Your task to perform on an android device: Open internet settings Image 0: 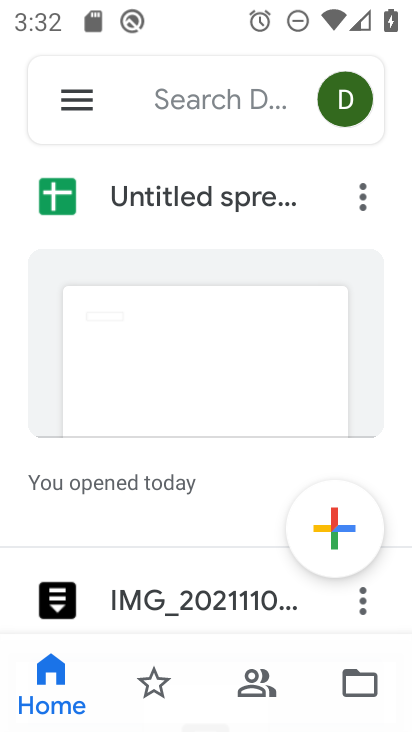
Step 0: press back button
Your task to perform on an android device: Open internet settings Image 1: 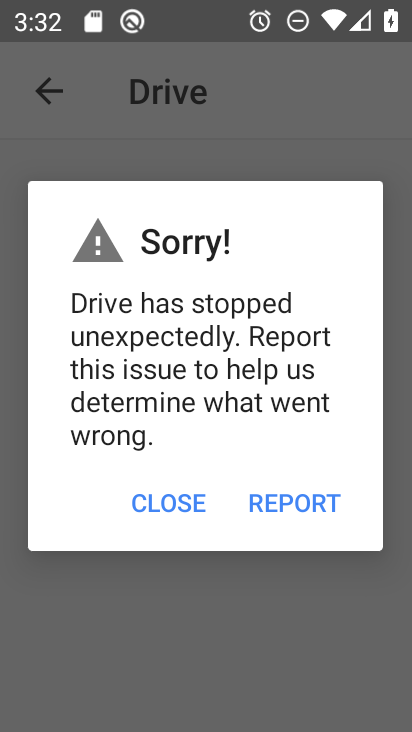
Step 1: press home button
Your task to perform on an android device: Open internet settings Image 2: 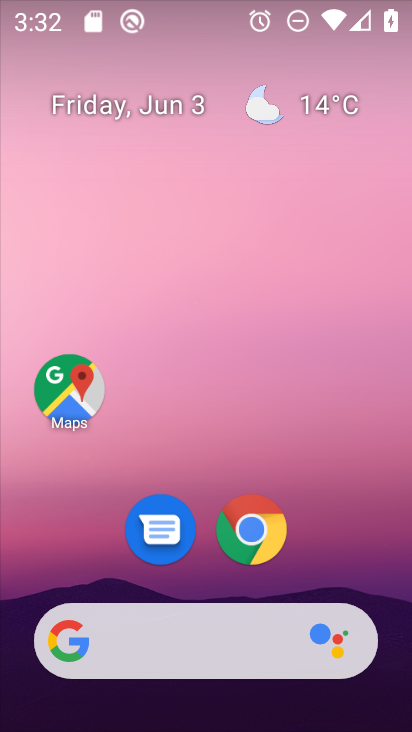
Step 2: drag from (342, 542) to (364, 187)
Your task to perform on an android device: Open internet settings Image 3: 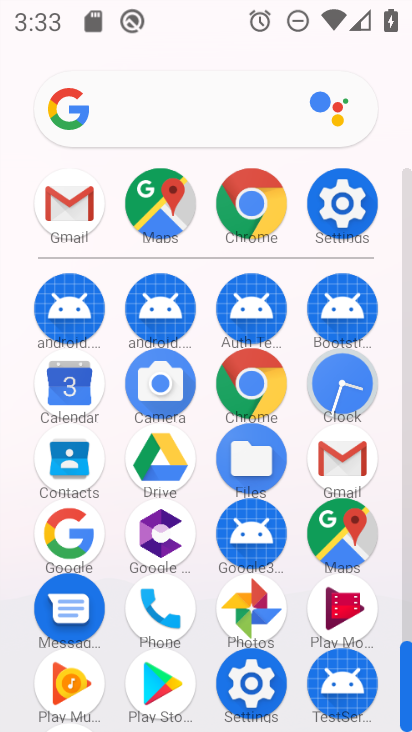
Step 3: click (355, 218)
Your task to perform on an android device: Open internet settings Image 4: 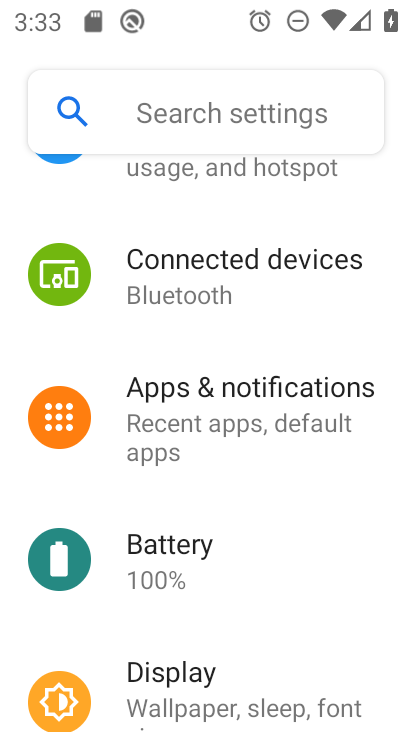
Step 4: drag from (377, 312) to (379, 436)
Your task to perform on an android device: Open internet settings Image 5: 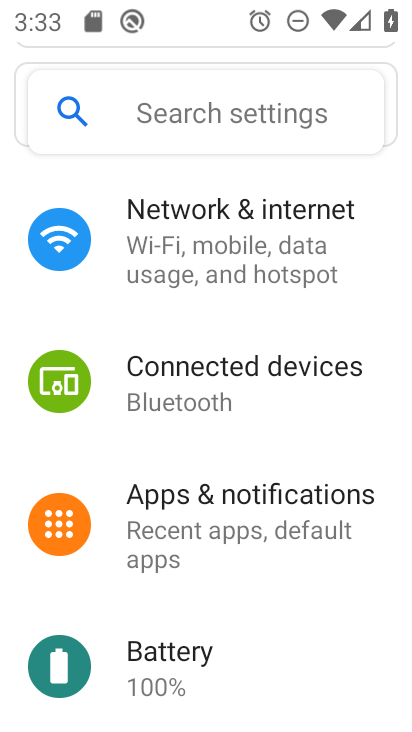
Step 5: drag from (382, 288) to (394, 535)
Your task to perform on an android device: Open internet settings Image 6: 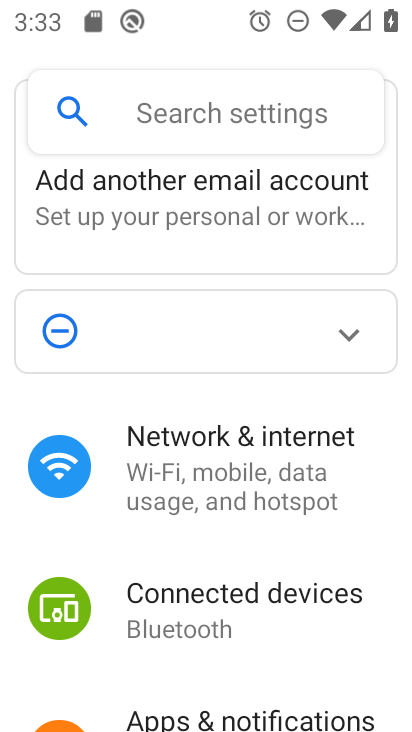
Step 6: click (286, 488)
Your task to perform on an android device: Open internet settings Image 7: 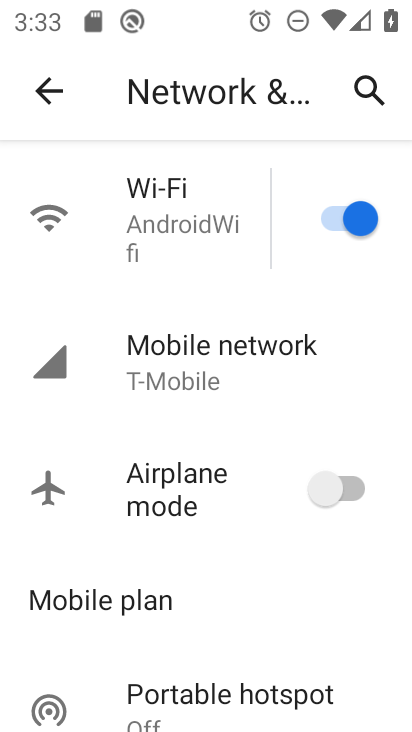
Step 7: task complete